Your task to perform on an android device: Open Google Chrome and click the shortcut for Amazon.com Image 0: 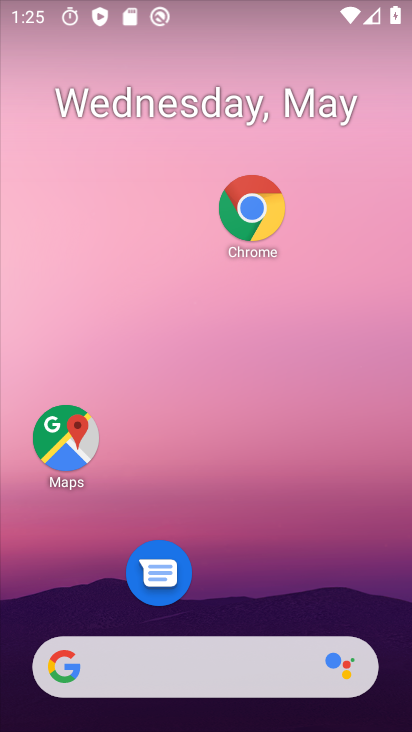
Step 0: click (261, 208)
Your task to perform on an android device: Open Google Chrome and click the shortcut for Amazon.com Image 1: 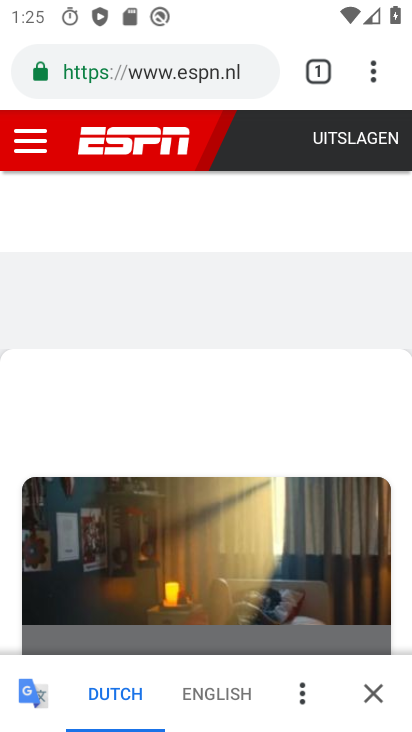
Step 1: click (320, 71)
Your task to perform on an android device: Open Google Chrome and click the shortcut for Amazon.com Image 2: 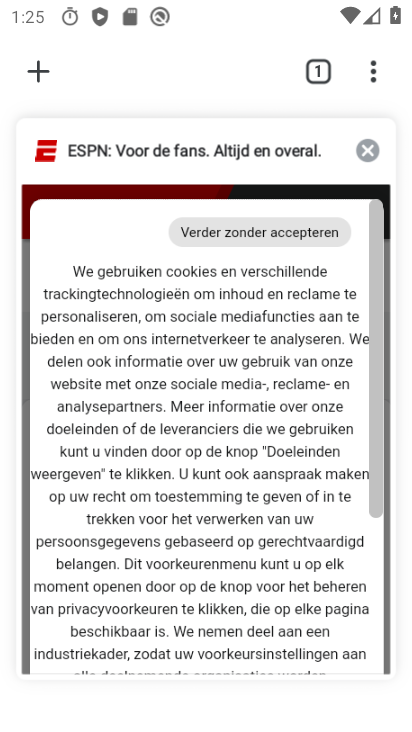
Step 2: click (51, 75)
Your task to perform on an android device: Open Google Chrome and click the shortcut for Amazon.com Image 3: 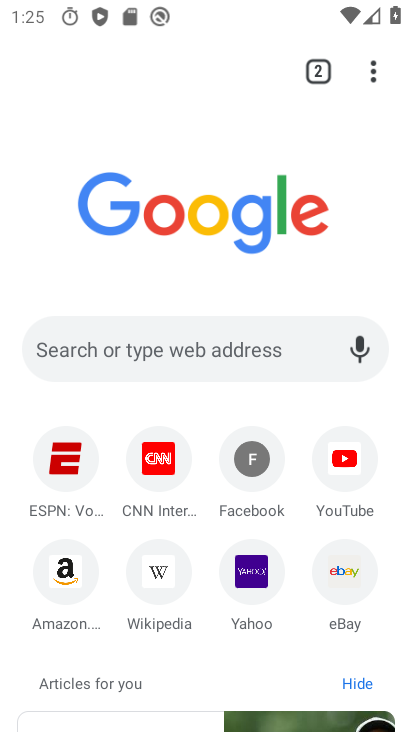
Step 3: click (72, 578)
Your task to perform on an android device: Open Google Chrome and click the shortcut for Amazon.com Image 4: 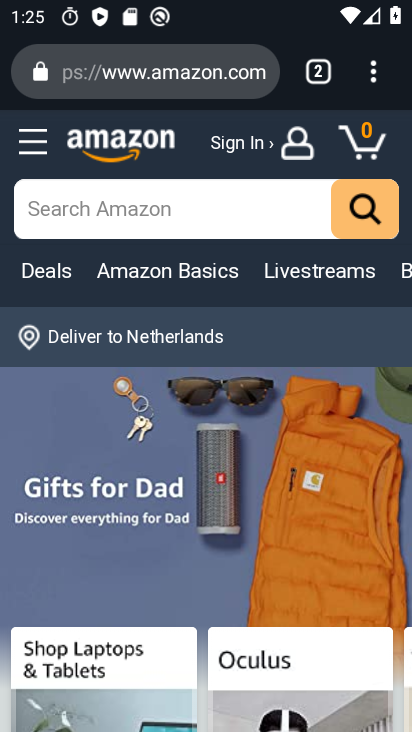
Step 4: task complete